Your task to perform on an android device: read, delete, or share a saved page in the chrome app Image 0: 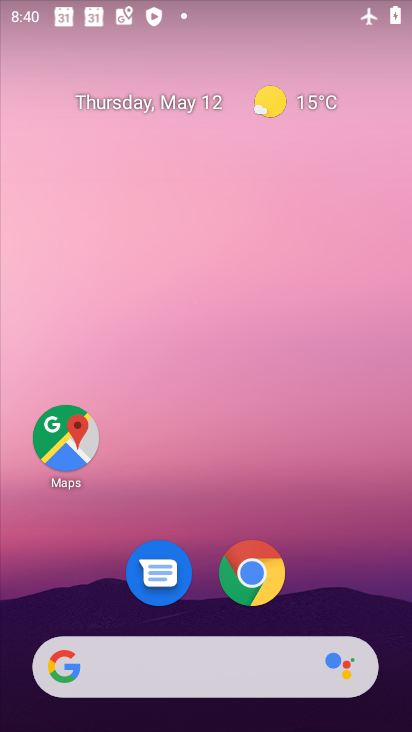
Step 0: click (251, 580)
Your task to perform on an android device: read, delete, or share a saved page in the chrome app Image 1: 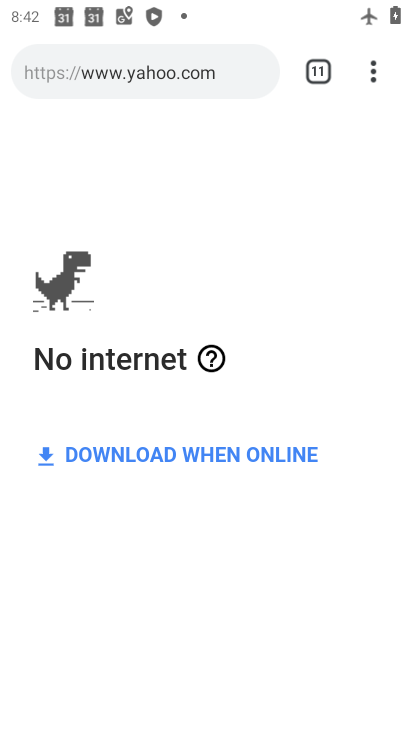
Step 1: click (375, 72)
Your task to perform on an android device: read, delete, or share a saved page in the chrome app Image 2: 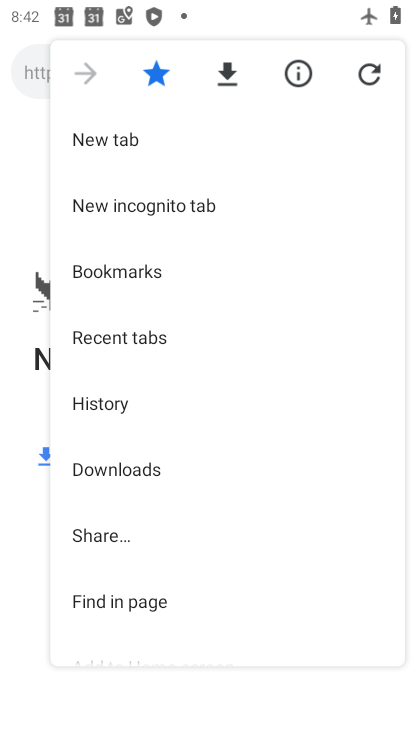
Step 2: drag from (187, 513) to (137, 269)
Your task to perform on an android device: read, delete, or share a saved page in the chrome app Image 3: 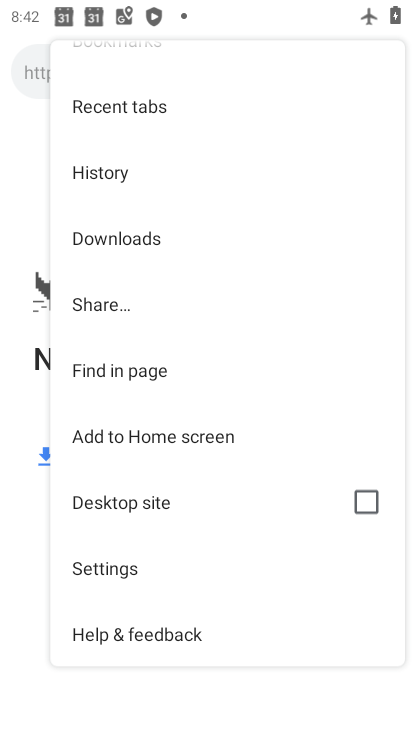
Step 3: click (135, 237)
Your task to perform on an android device: read, delete, or share a saved page in the chrome app Image 4: 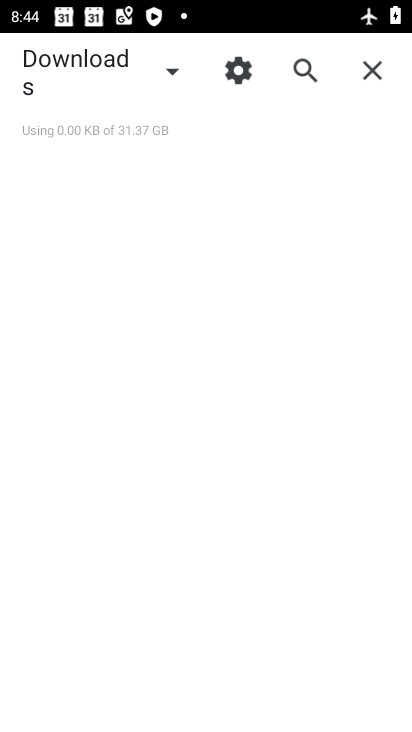
Step 4: task complete